Your task to perform on an android device: Is it going to rain today? Image 0: 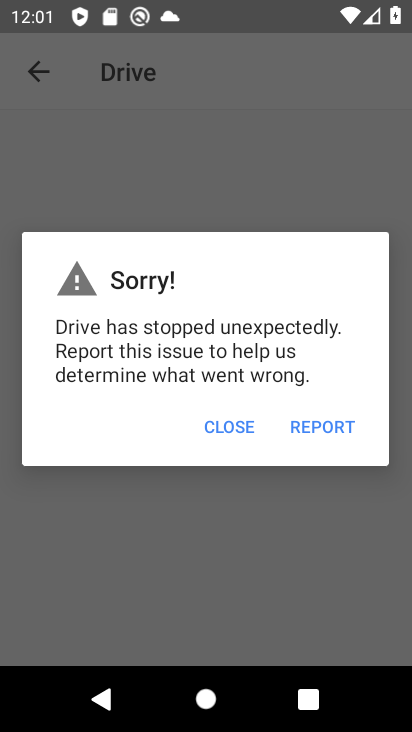
Step 0: press home button
Your task to perform on an android device: Is it going to rain today? Image 1: 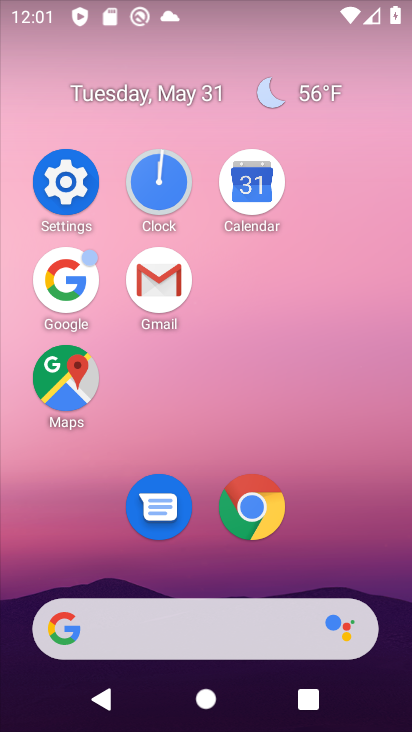
Step 1: click (72, 288)
Your task to perform on an android device: Is it going to rain today? Image 2: 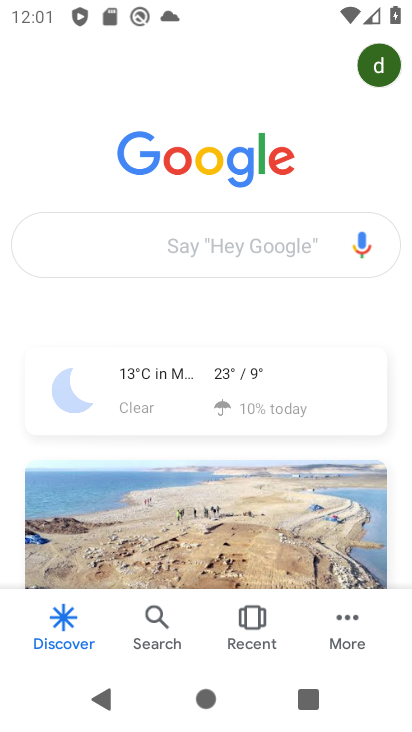
Step 2: click (184, 246)
Your task to perform on an android device: Is it going to rain today? Image 3: 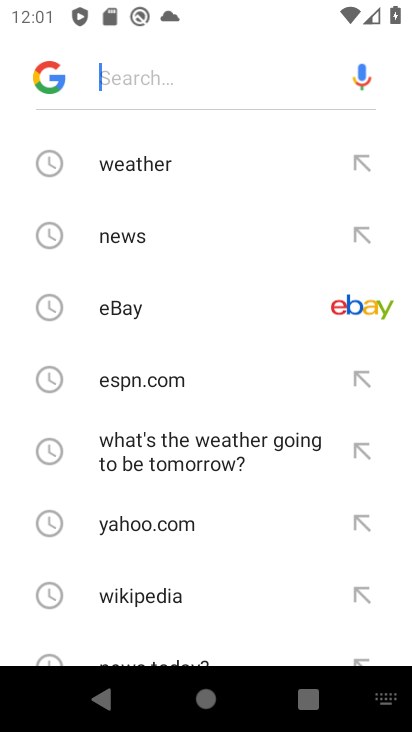
Step 3: click (157, 167)
Your task to perform on an android device: Is it going to rain today? Image 4: 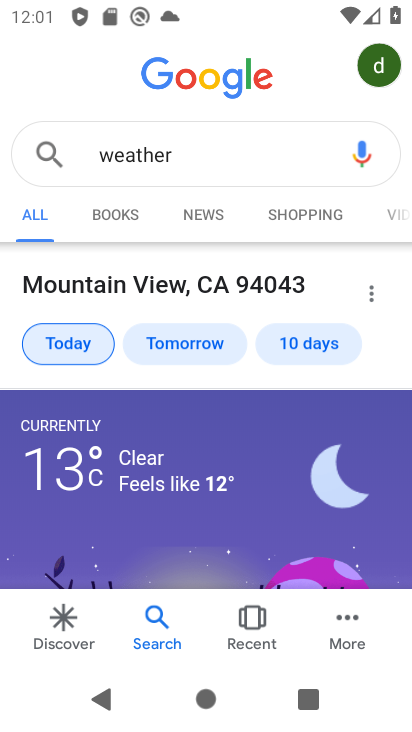
Step 4: task complete